Your task to perform on an android device: Go to location settings Image 0: 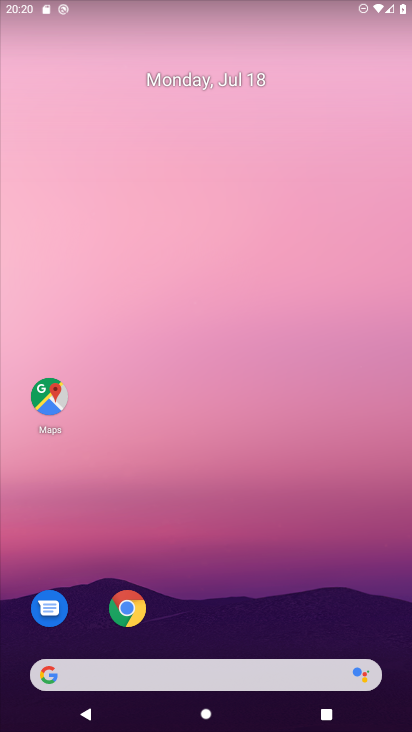
Step 0: drag from (236, 579) to (323, 108)
Your task to perform on an android device: Go to location settings Image 1: 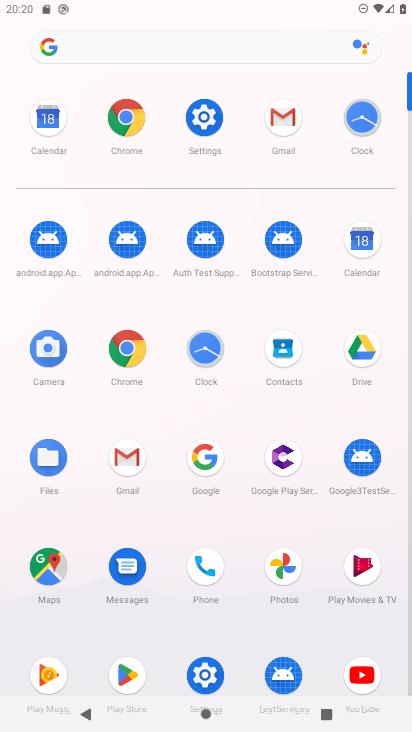
Step 1: click (206, 121)
Your task to perform on an android device: Go to location settings Image 2: 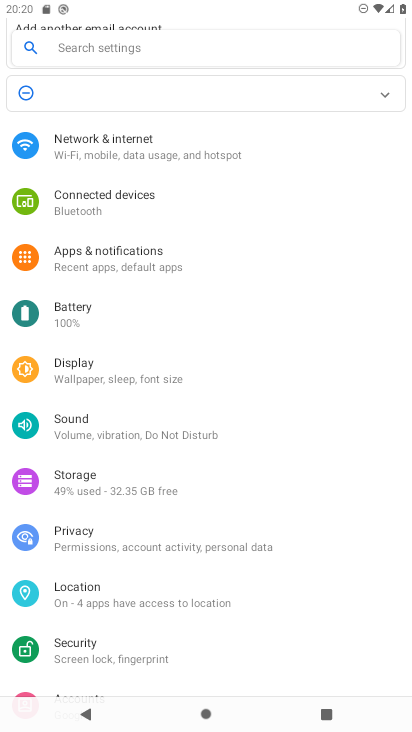
Step 2: click (95, 577)
Your task to perform on an android device: Go to location settings Image 3: 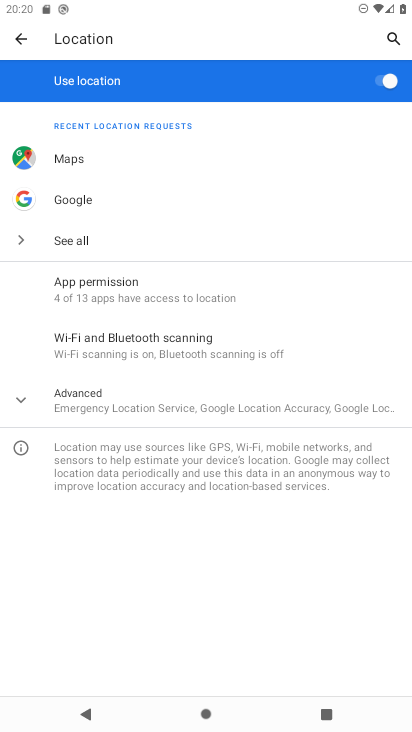
Step 3: task complete